Your task to perform on an android device: Go to Amazon Image 0: 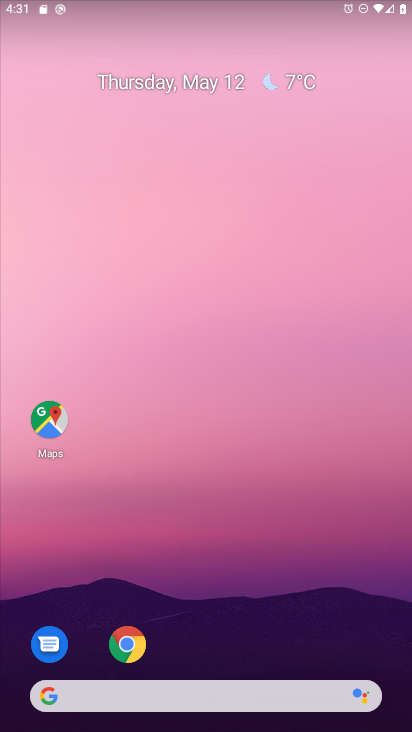
Step 0: click (143, 644)
Your task to perform on an android device: Go to Amazon Image 1: 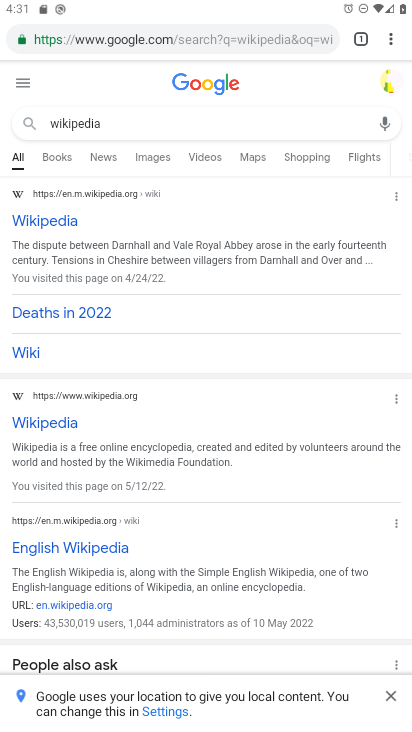
Step 1: click (394, 45)
Your task to perform on an android device: Go to Amazon Image 2: 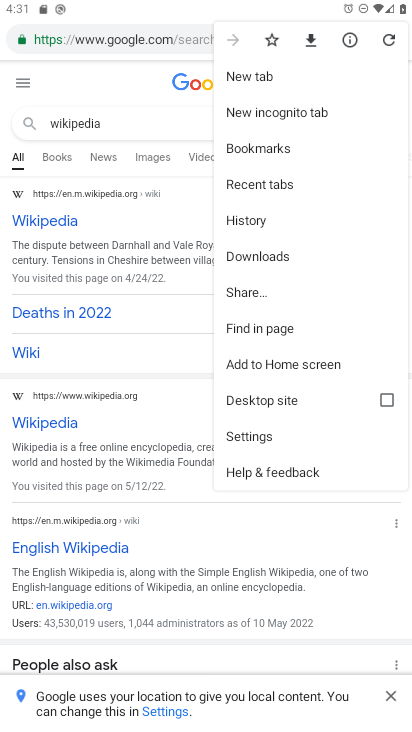
Step 2: click (249, 82)
Your task to perform on an android device: Go to Amazon Image 3: 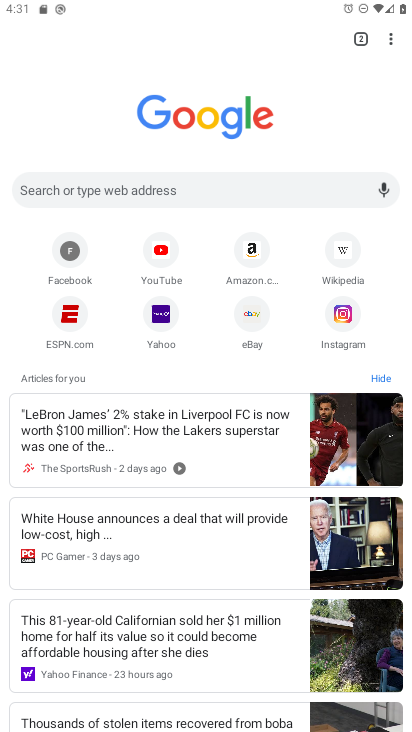
Step 3: click (263, 255)
Your task to perform on an android device: Go to Amazon Image 4: 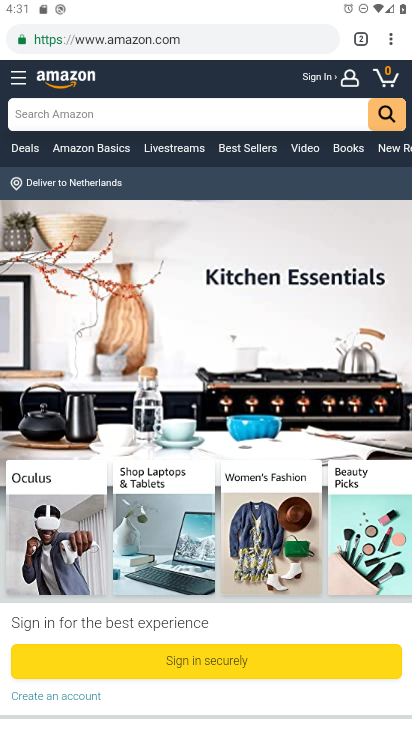
Step 4: task complete